Your task to perform on an android device: View the shopping cart on amazon.com. Add apple airpods pro to the cart on amazon.com, then select checkout. Image 0: 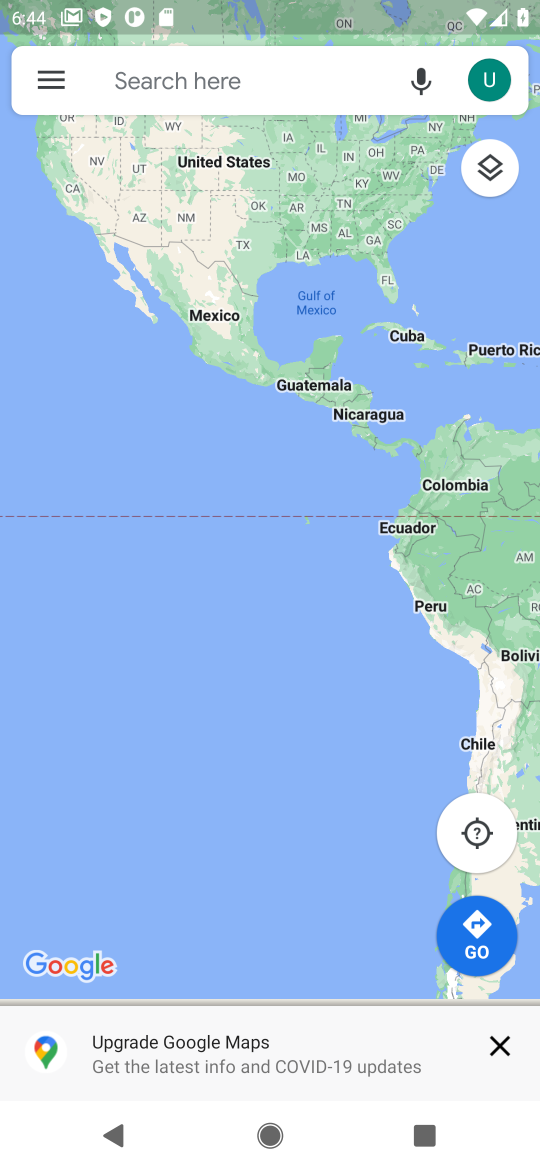
Step 0: press home button
Your task to perform on an android device: View the shopping cart on amazon.com. Add apple airpods pro to the cart on amazon.com, then select checkout. Image 1: 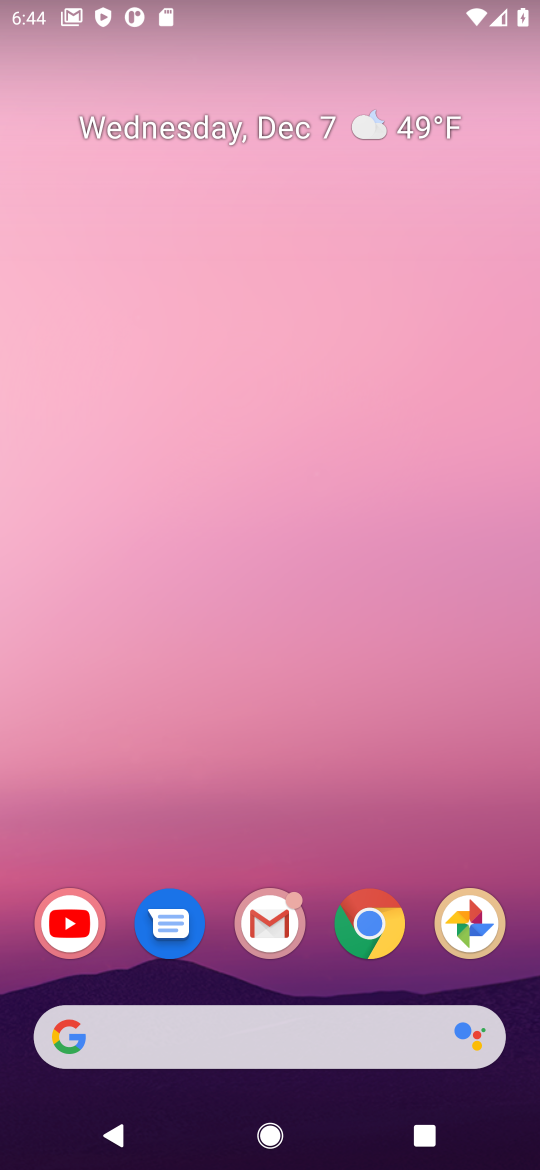
Step 1: drag from (197, 987) to (240, 464)
Your task to perform on an android device: View the shopping cart on amazon.com. Add apple airpods pro to the cart on amazon.com, then select checkout. Image 2: 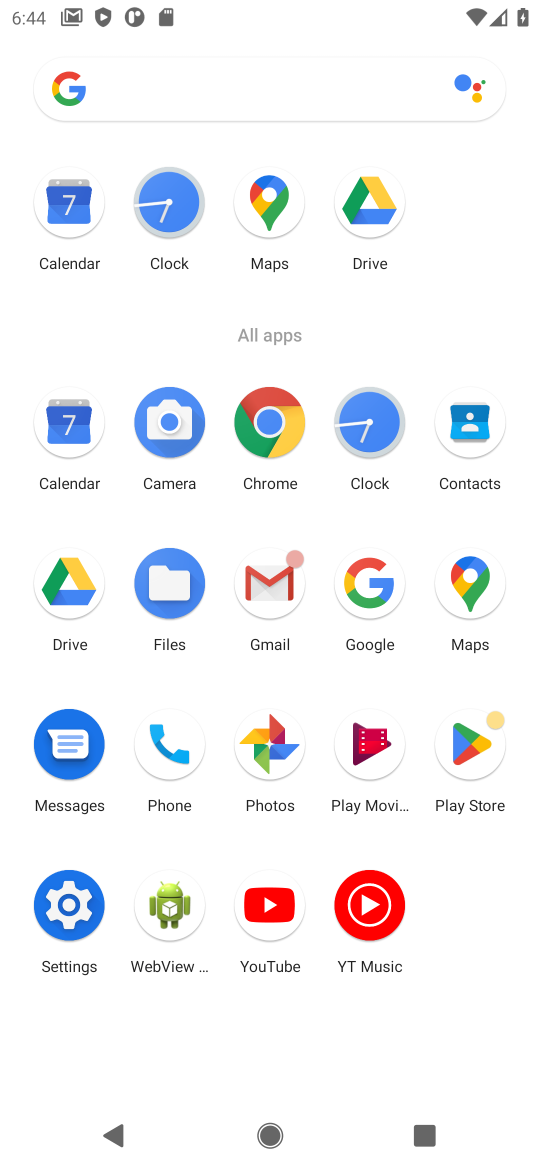
Step 2: click (369, 585)
Your task to perform on an android device: View the shopping cart on amazon.com. Add apple airpods pro to the cart on amazon.com, then select checkout. Image 3: 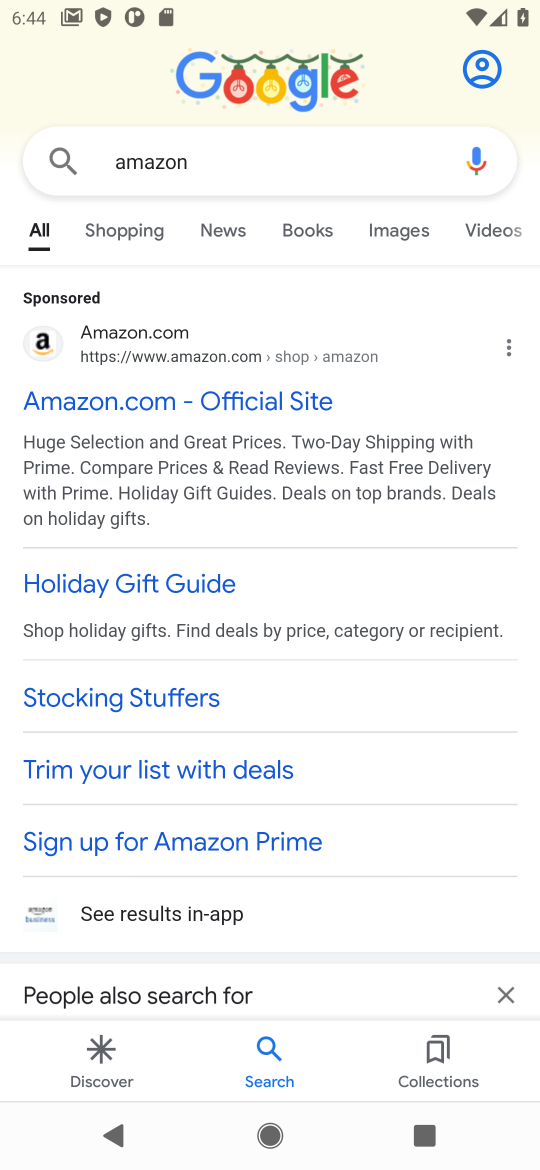
Step 3: click (163, 164)
Your task to perform on an android device: View the shopping cart on amazon.com. Add apple airpods pro to the cart on amazon.com, then select checkout. Image 4: 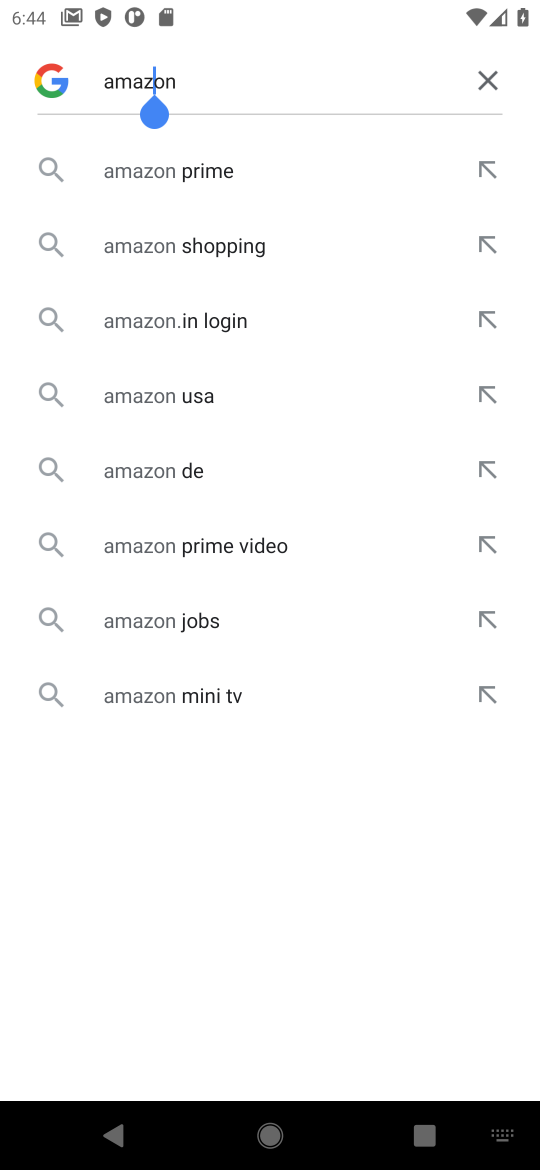
Step 4: click (496, 87)
Your task to perform on an android device: View the shopping cart on amazon.com. Add apple airpods pro to the cart on amazon.com, then select checkout. Image 5: 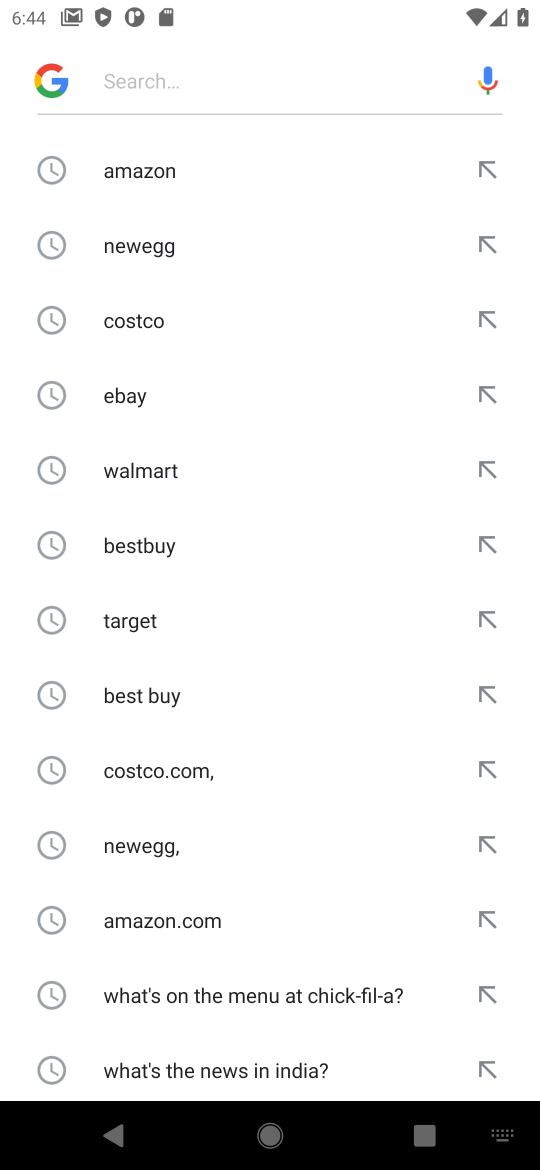
Step 5: click (128, 173)
Your task to perform on an android device: View the shopping cart on amazon.com. Add apple airpods pro to the cart on amazon.com, then select checkout. Image 6: 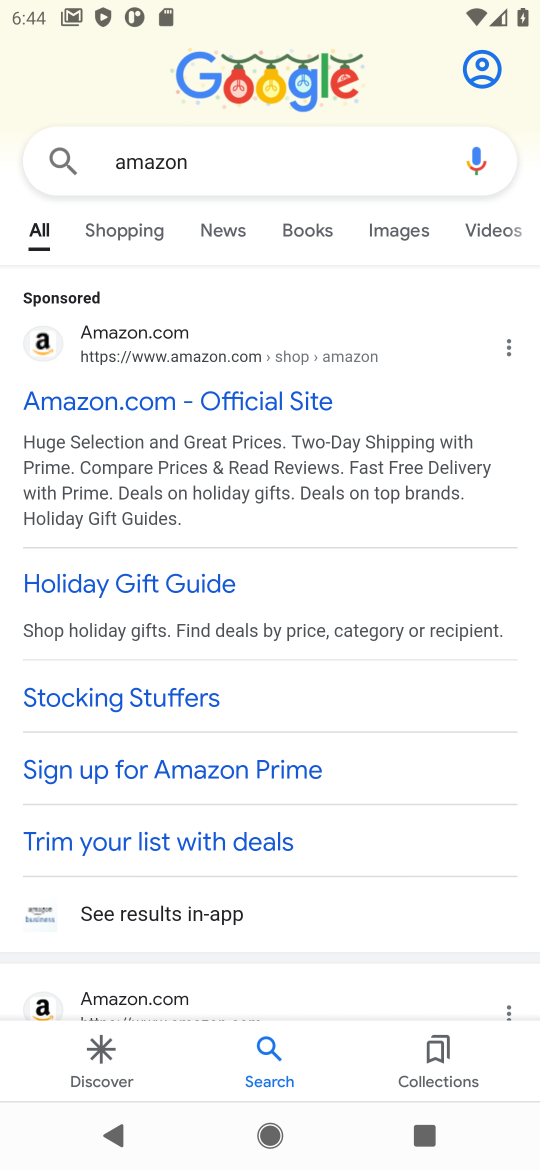
Step 6: click (124, 408)
Your task to perform on an android device: View the shopping cart on amazon.com. Add apple airpods pro to the cart on amazon.com, then select checkout. Image 7: 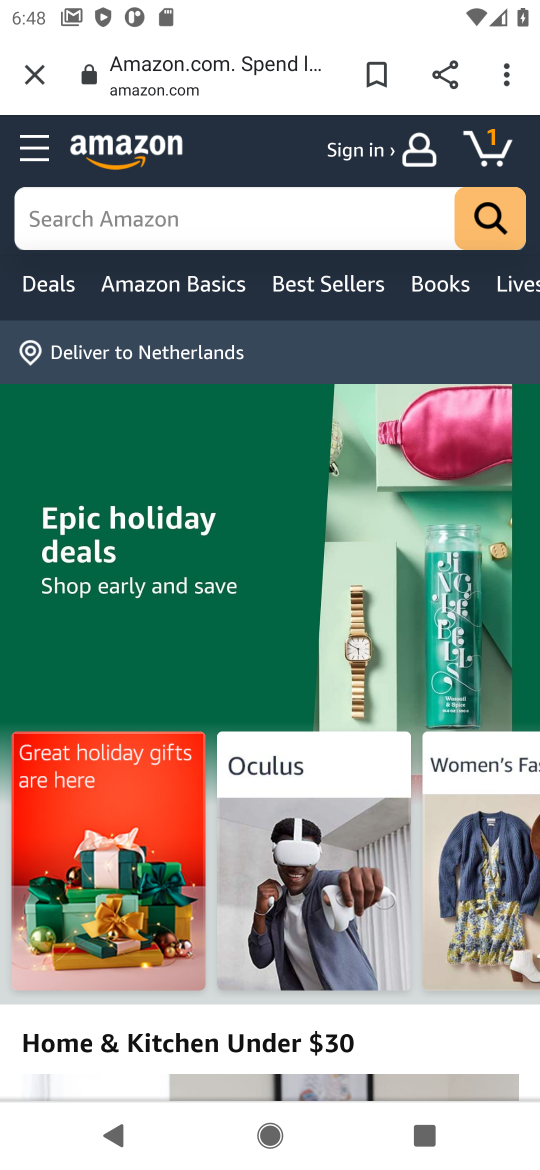
Step 7: click (172, 217)
Your task to perform on an android device: View the shopping cart on amazon.com. Add apple airpods pro to the cart on amazon.com, then select checkout. Image 8: 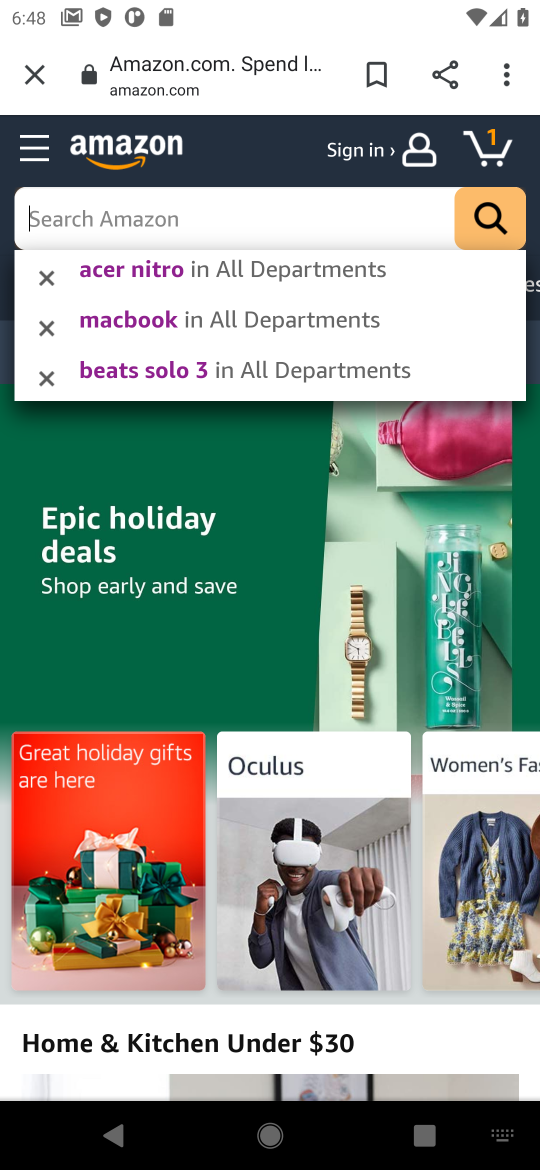
Step 8: click (138, 217)
Your task to perform on an android device: View the shopping cart on amazon.com. Add apple airpods pro to the cart on amazon.com, then select checkout. Image 9: 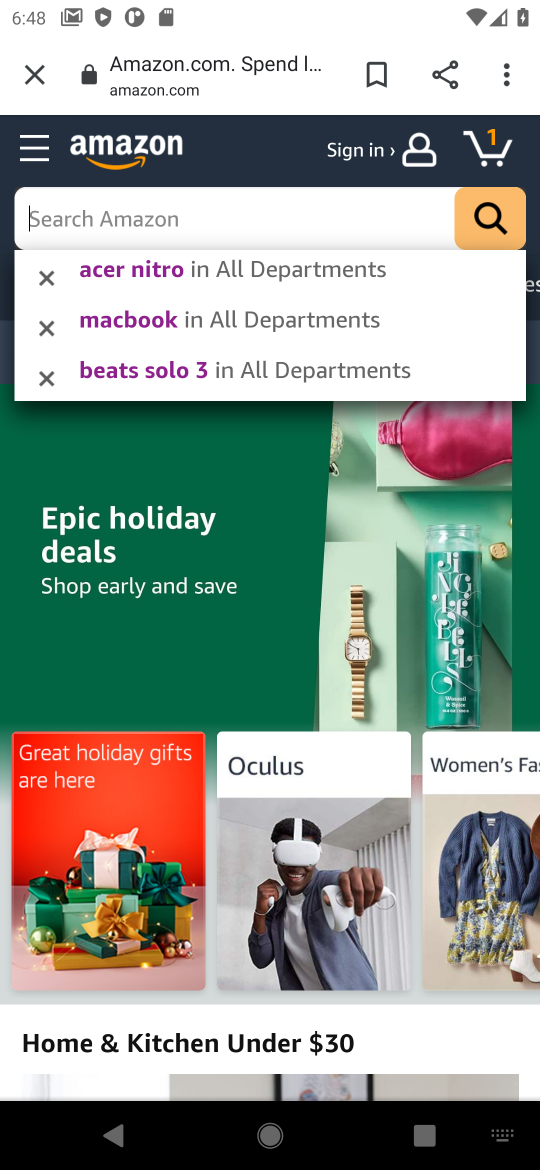
Step 9: type "apple airpods"
Your task to perform on an android device: View the shopping cart on amazon.com. Add apple airpods pro to the cart on amazon.com, then select checkout. Image 10: 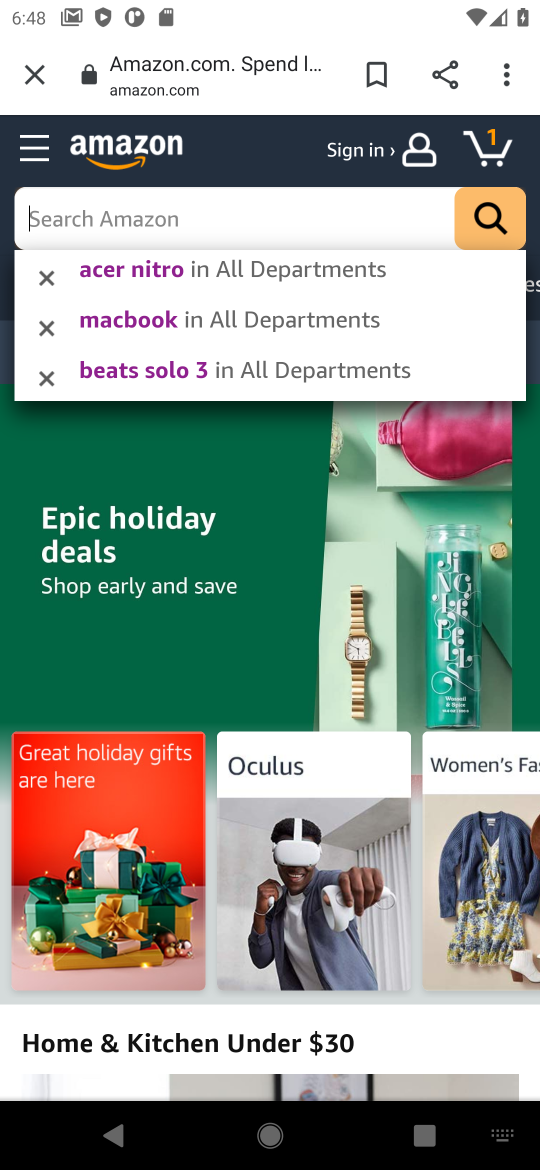
Step 10: click (485, 210)
Your task to perform on an android device: View the shopping cart on amazon.com. Add apple airpods pro to the cart on amazon.com, then select checkout. Image 11: 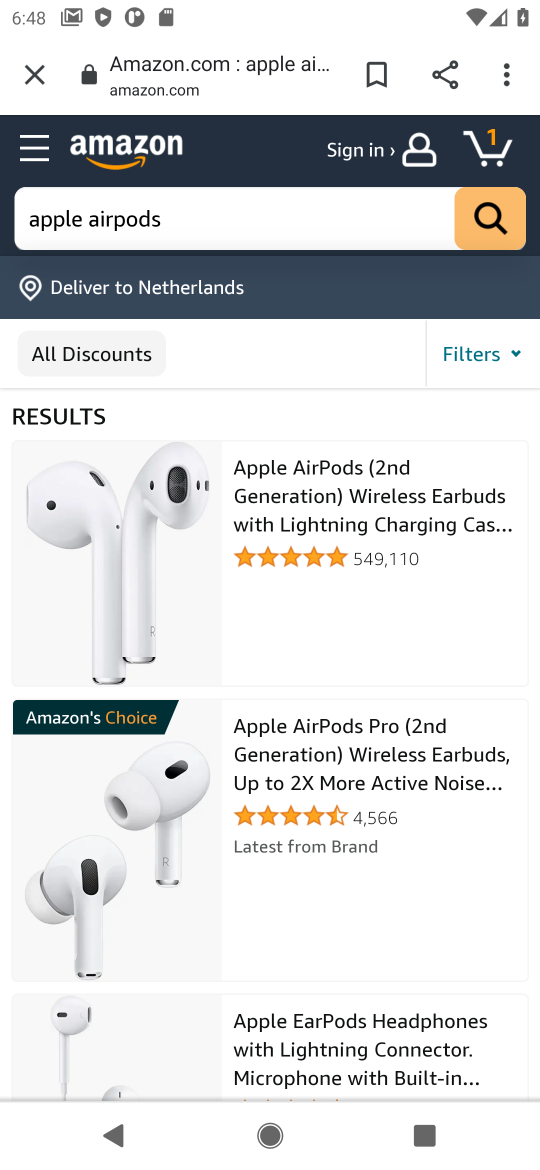
Step 11: click (262, 486)
Your task to perform on an android device: View the shopping cart on amazon.com. Add apple airpods pro to the cart on amazon.com, then select checkout. Image 12: 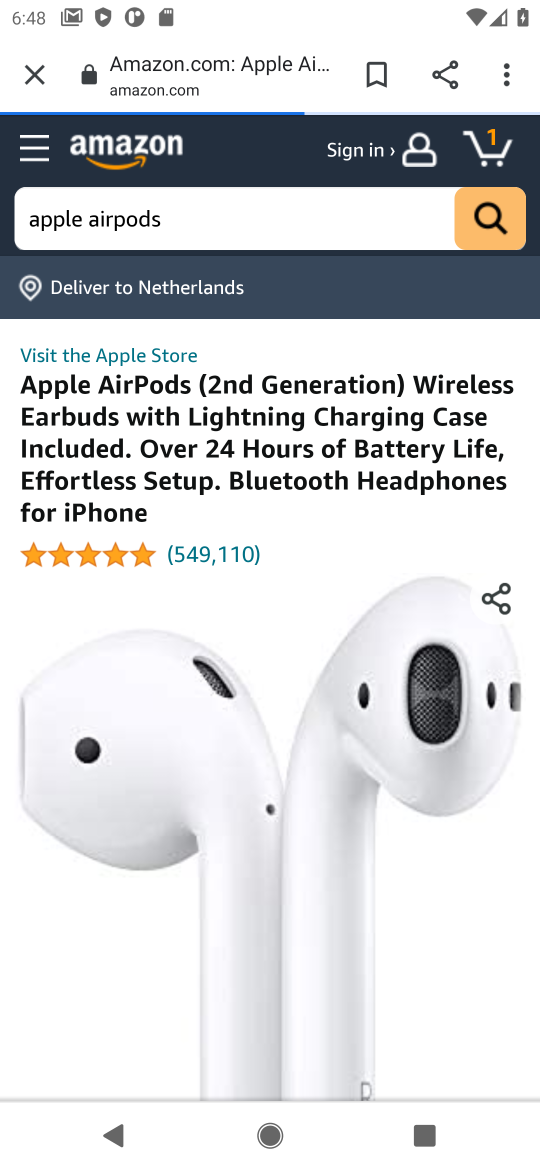
Step 12: task complete